Your task to perform on an android device: Go to wifi settings Image 0: 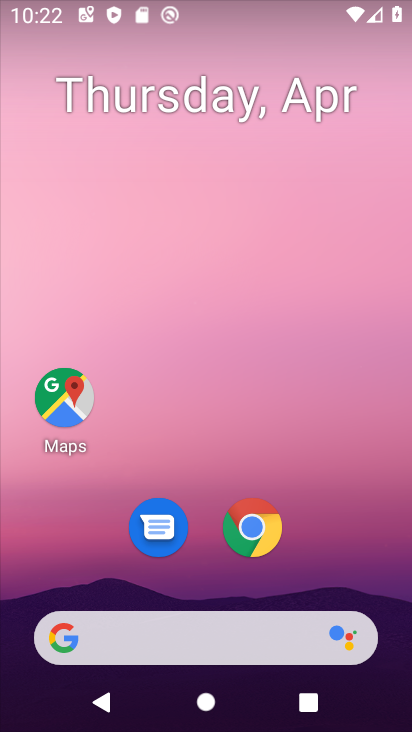
Step 0: drag from (319, 416) to (402, 464)
Your task to perform on an android device: Go to wifi settings Image 1: 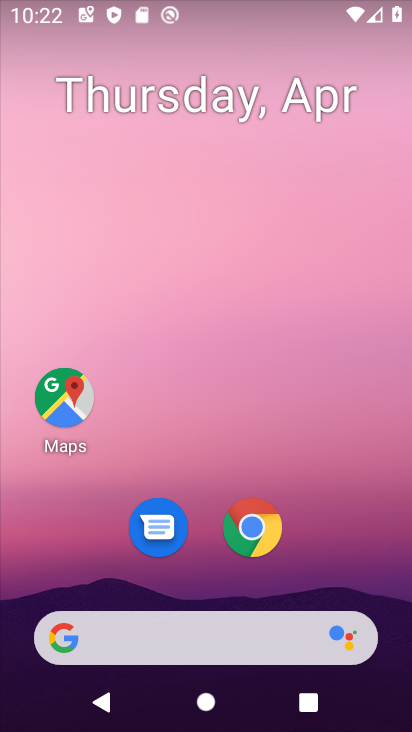
Step 1: drag from (332, 326) to (97, 17)
Your task to perform on an android device: Go to wifi settings Image 2: 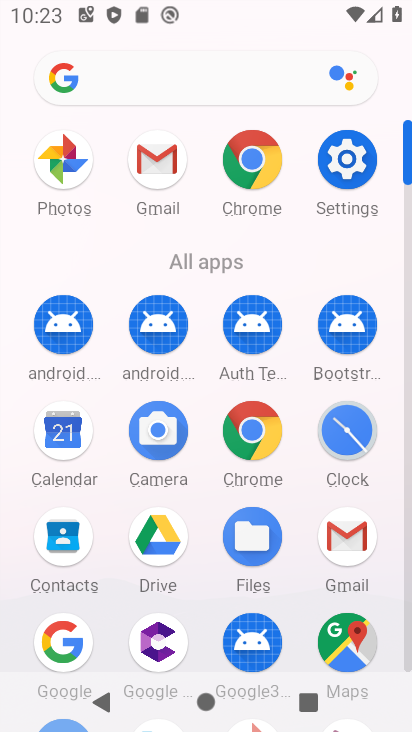
Step 2: click (348, 146)
Your task to perform on an android device: Go to wifi settings Image 3: 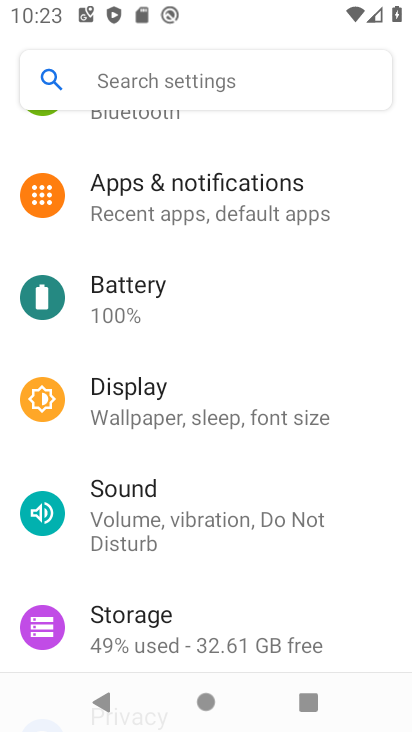
Step 3: drag from (168, 177) to (194, 588)
Your task to perform on an android device: Go to wifi settings Image 4: 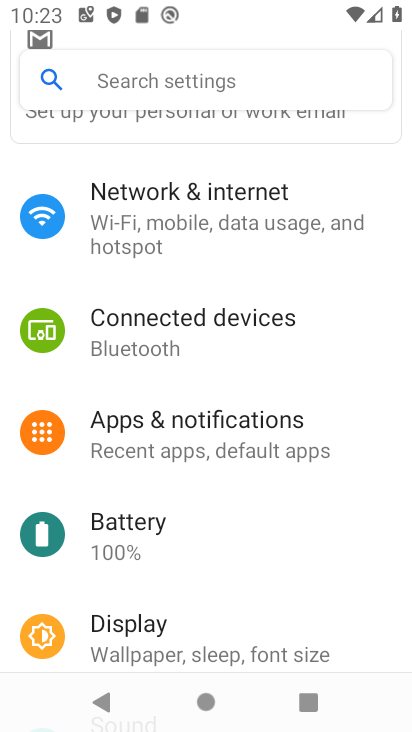
Step 4: drag from (197, 417) to (196, 560)
Your task to perform on an android device: Go to wifi settings Image 5: 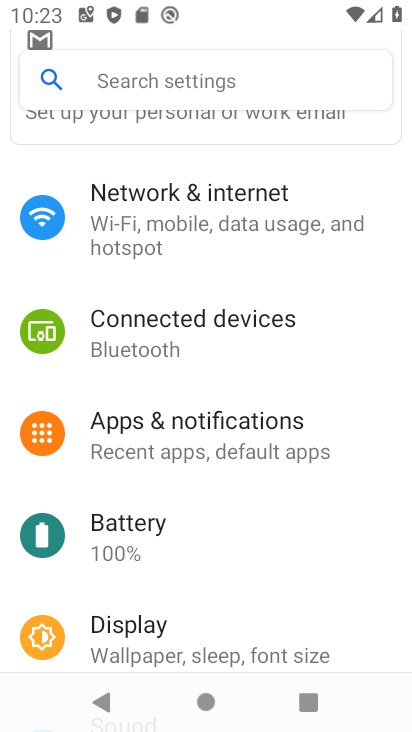
Step 5: click (202, 229)
Your task to perform on an android device: Go to wifi settings Image 6: 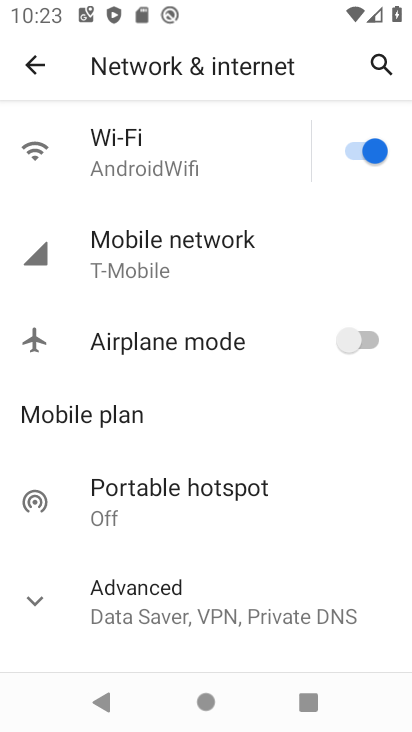
Step 6: click (148, 155)
Your task to perform on an android device: Go to wifi settings Image 7: 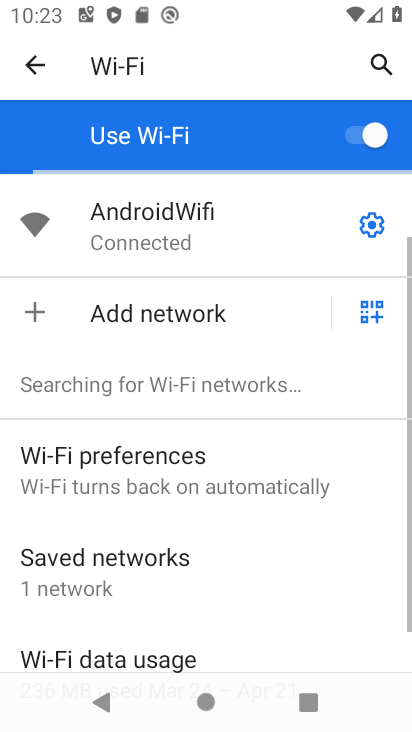
Step 7: task complete